Your task to perform on an android device: Open Google Chrome and click the shortcut for Amazon.com Image 0: 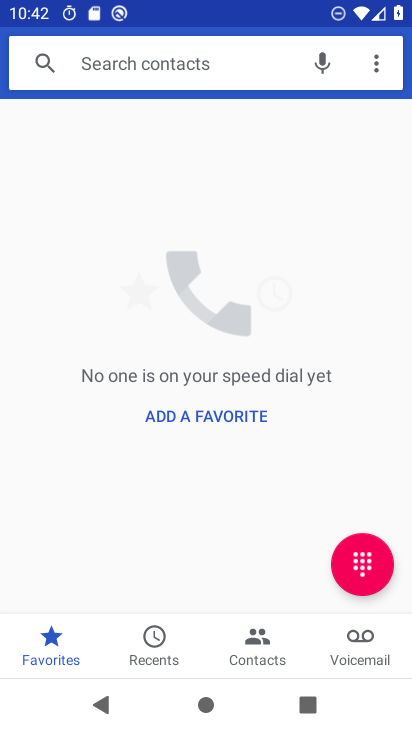
Step 0: press home button
Your task to perform on an android device: Open Google Chrome and click the shortcut for Amazon.com Image 1: 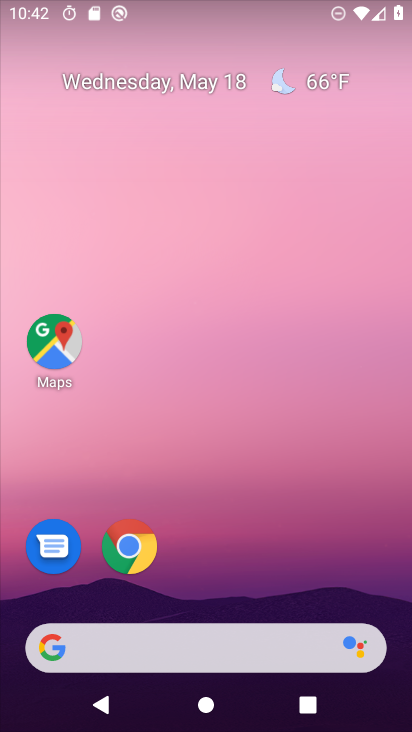
Step 1: click (129, 549)
Your task to perform on an android device: Open Google Chrome and click the shortcut for Amazon.com Image 2: 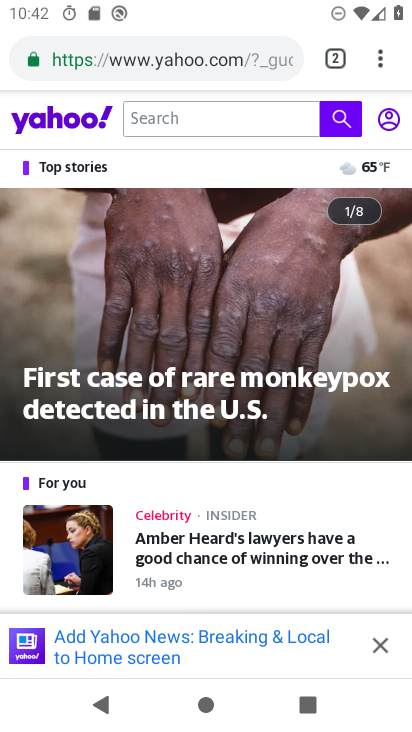
Step 2: click (338, 51)
Your task to perform on an android device: Open Google Chrome and click the shortcut for Amazon.com Image 3: 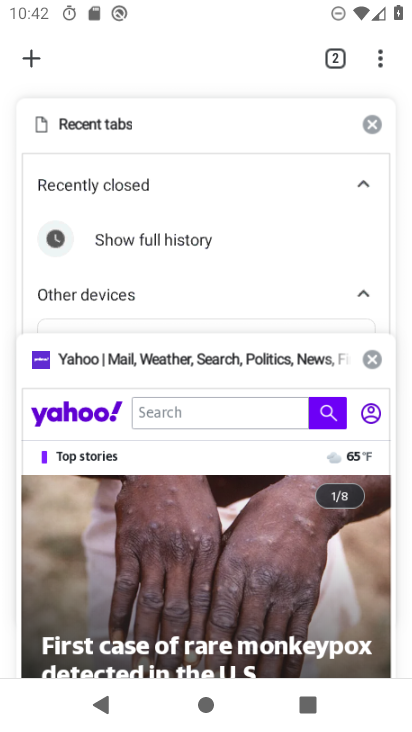
Step 3: click (27, 62)
Your task to perform on an android device: Open Google Chrome and click the shortcut for Amazon.com Image 4: 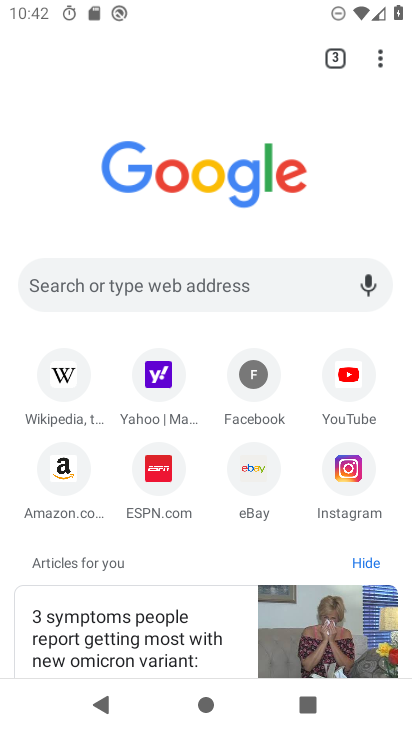
Step 4: click (46, 492)
Your task to perform on an android device: Open Google Chrome and click the shortcut for Amazon.com Image 5: 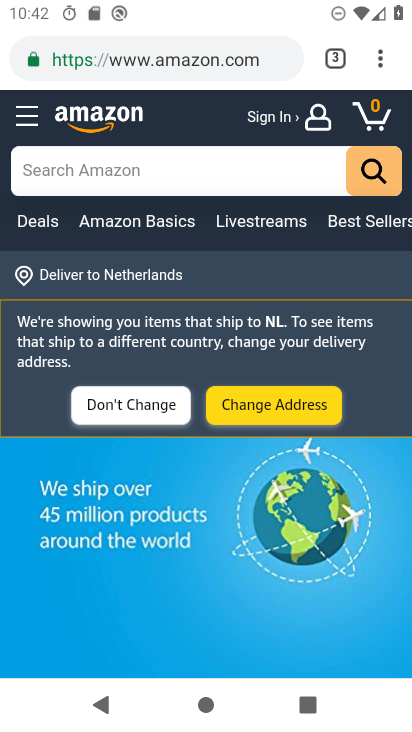
Step 5: task complete